Your task to perform on an android device: Search for Italian restaurants on Maps Image 0: 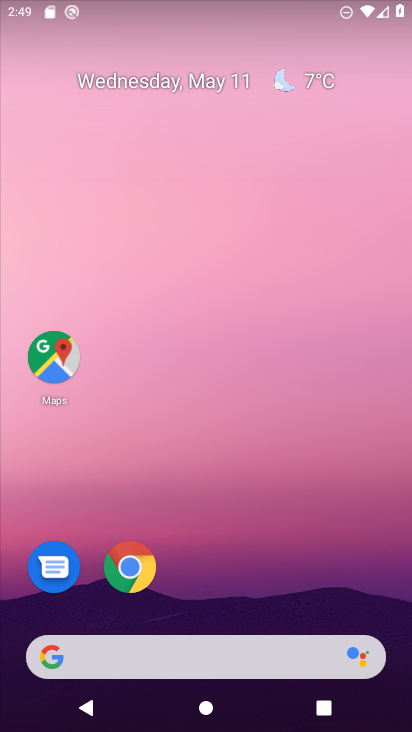
Step 0: click (70, 371)
Your task to perform on an android device: Search for Italian restaurants on Maps Image 1: 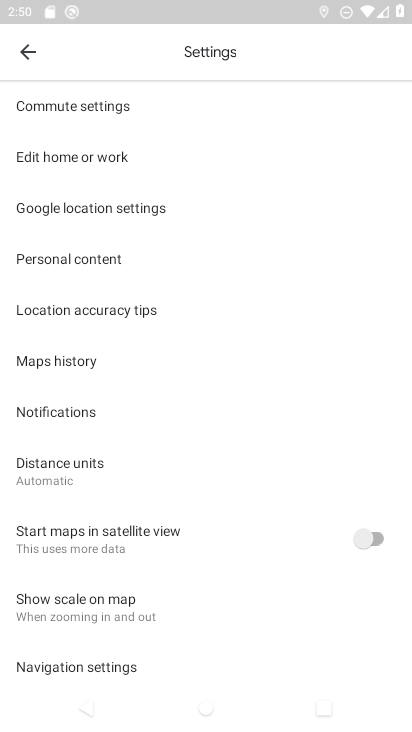
Step 1: click (33, 53)
Your task to perform on an android device: Search for Italian restaurants on Maps Image 2: 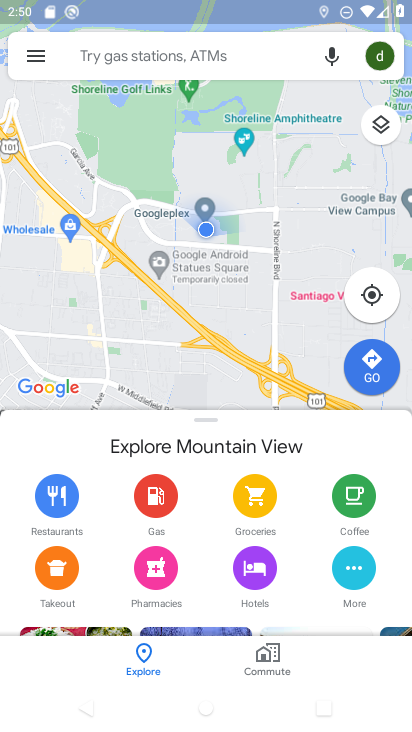
Step 2: click (135, 54)
Your task to perform on an android device: Search for Italian restaurants on Maps Image 3: 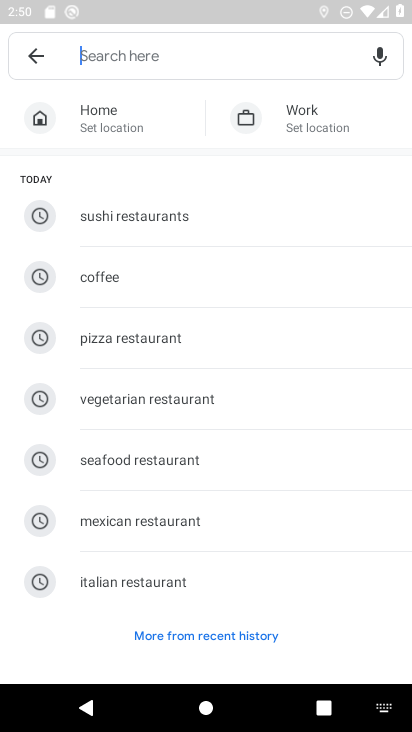
Step 3: click (188, 584)
Your task to perform on an android device: Search for Italian restaurants on Maps Image 4: 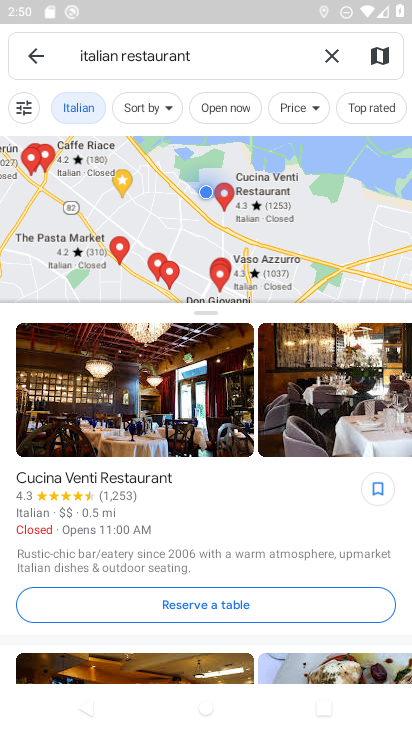
Step 4: task complete